Your task to perform on an android device: Go to calendar. Show me events next week Image 0: 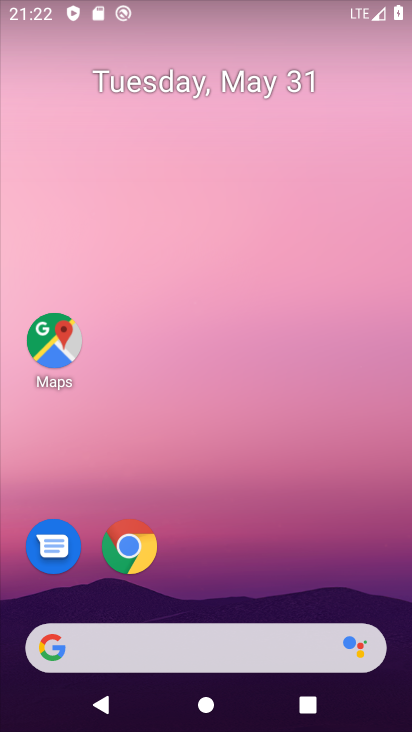
Step 0: drag from (402, 721) to (365, 274)
Your task to perform on an android device: Go to calendar. Show me events next week Image 1: 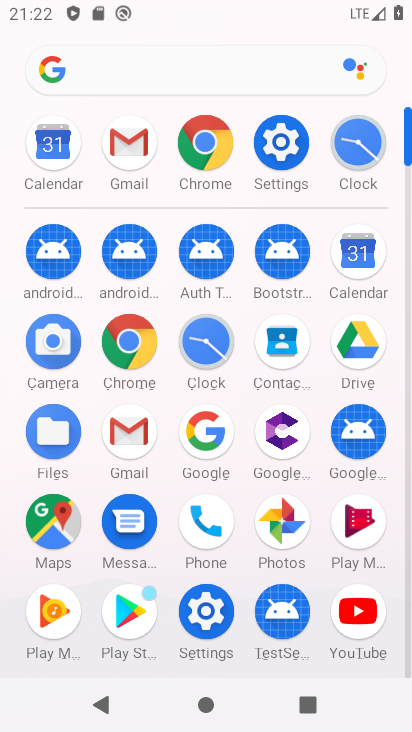
Step 1: click (352, 251)
Your task to perform on an android device: Go to calendar. Show me events next week Image 2: 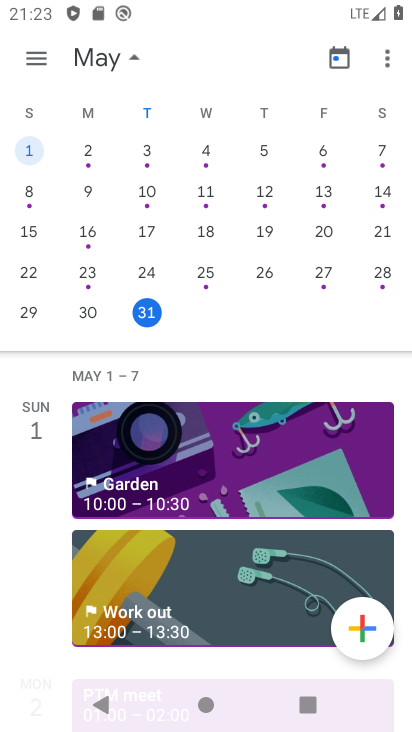
Step 2: drag from (400, 187) to (182, 166)
Your task to perform on an android device: Go to calendar. Show me events next week Image 3: 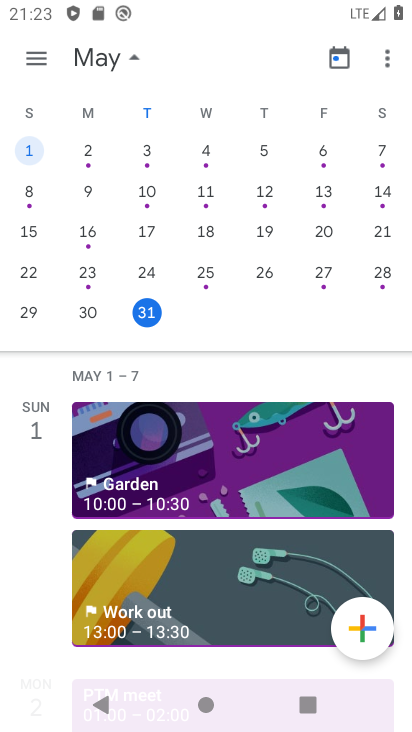
Step 3: drag from (399, 163) to (32, 202)
Your task to perform on an android device: Go to calendar. Show me events next week Image 4: 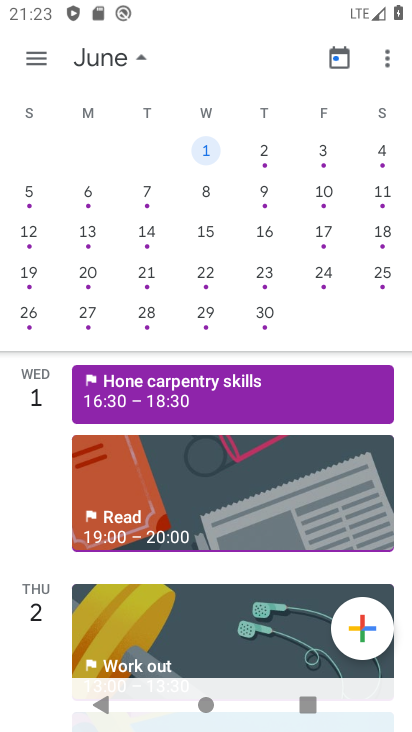
Step 4: click (201, 185)
Your task to perform on an android device: Go to calendar. Show me events next week Image 5: 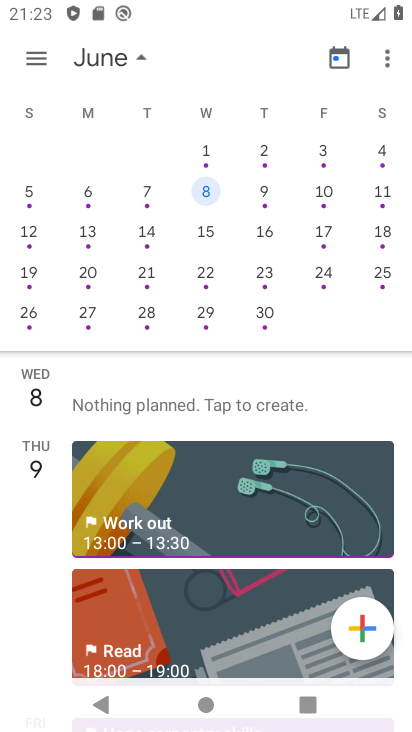
Step 5: click (23, 58)
Your task to perform on an android device: Go to calendar. Show me events next week Image 6: 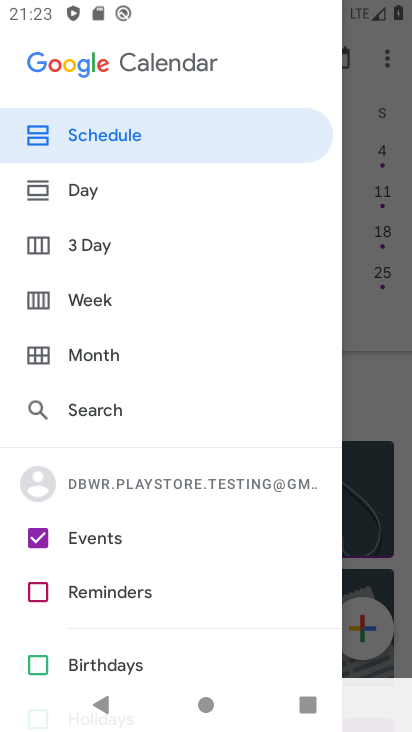
Step 6: click (88, 292)
Your task to perform on an android device: Go to calendar. Show me events next week Image 7: 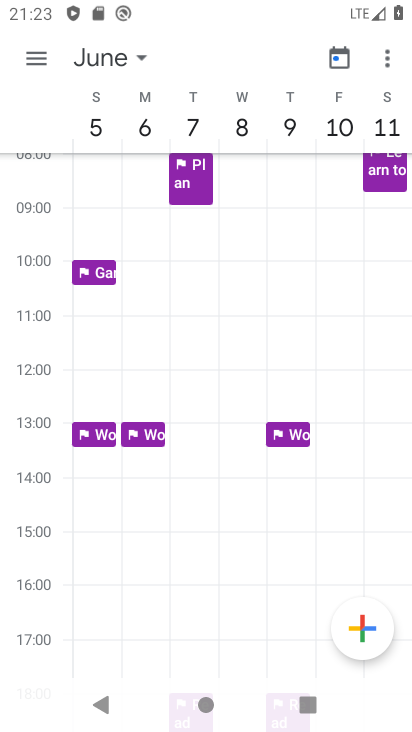
Step 7: click (39, 62)
Your task to perform on an android device: Go to calendar. Show me events next week Image 8: 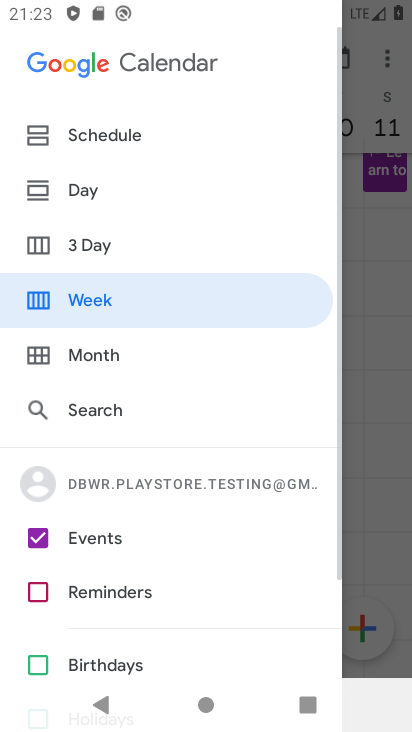
Step 8: click (89, 135)
Your task to perform on an android device: Go to calendar. Show me events next week Image 9: 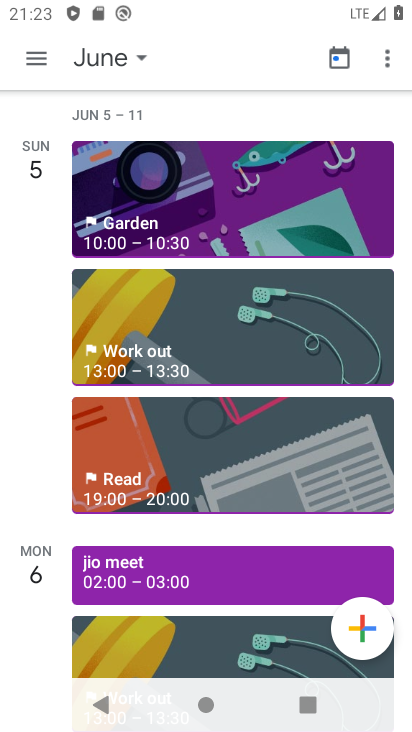
Step 9: task complete